Your task to perform on an android device: open a bookmark in the chrome app Image 0: 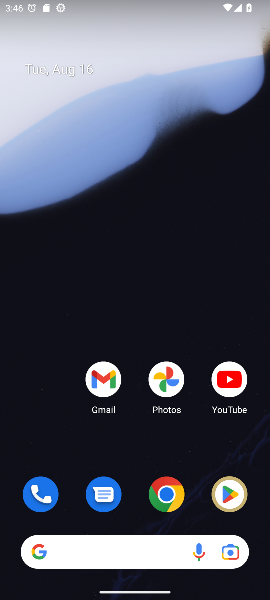
Step 0: click (171, 499)
Your task to perform on an android device: open a bookmark in the chrome app Image 1: 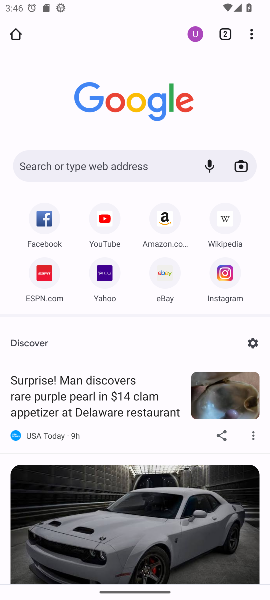
Step 1: click (256, 32)
Your task to perform on an android device: open a bookmark in the chrome app Image 2: 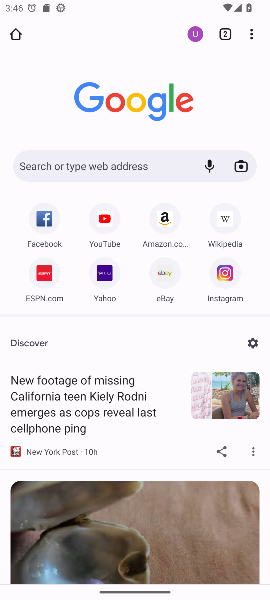
Step 2: click (248, 38)
Your task to perform on an android device: open a bookmark in the chrome app Image 3: 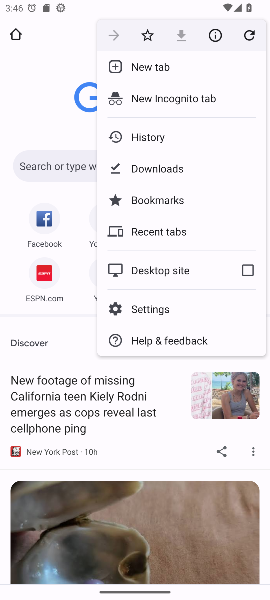
Step 3: click (148, 203)
Your task to perform on an android device: open a bookmark in the chrome app Image 4: 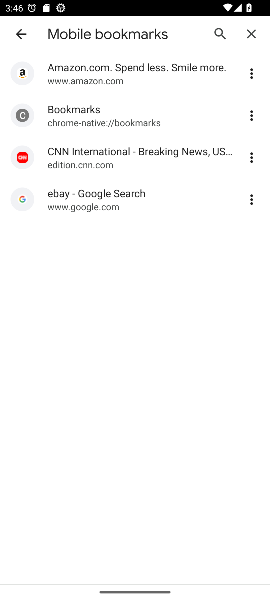
Step 4: task complete